Your task to perform on an android device: Open Google Chrome and click the shortcut for Amazon.com Image 0: 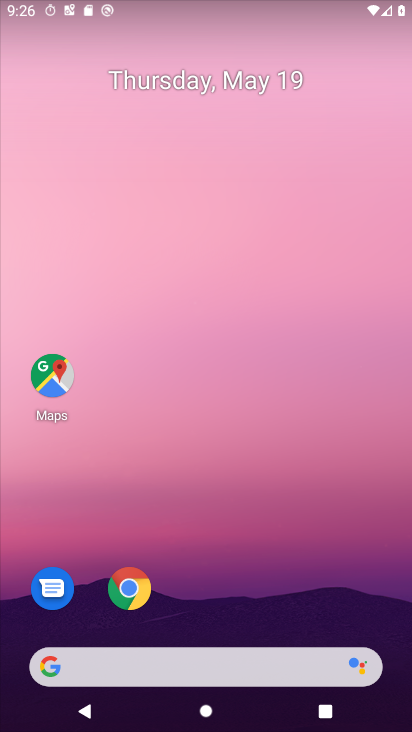
Step 0: press home button
Your task to perform on an android device: Open Google Chrome and click the shortcut for Amazon.com Image 1: 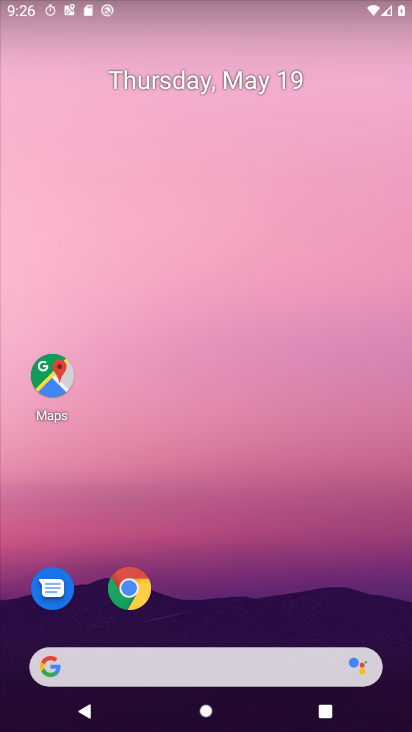
Step 1: click (132, 596)
Your task to perform on an android device: Open Google Chrome and click the shortcut for Amazon.com Image 2: 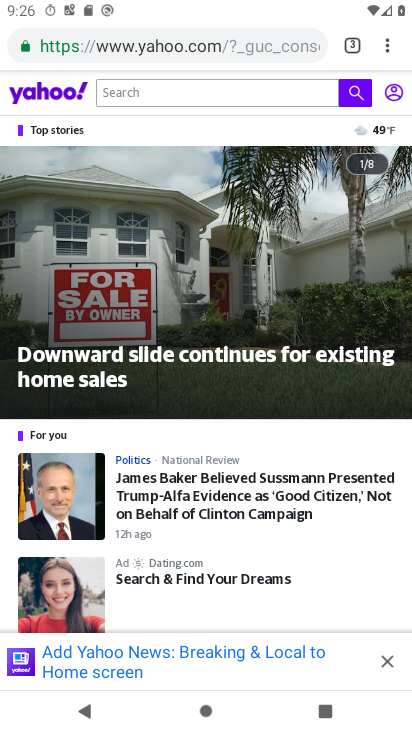
Step 2: drag from (385, 45) to (336, 91)
Your task to perform on an android device: Open Google Chrome and click the shortcut for Amazon.com Image 3: 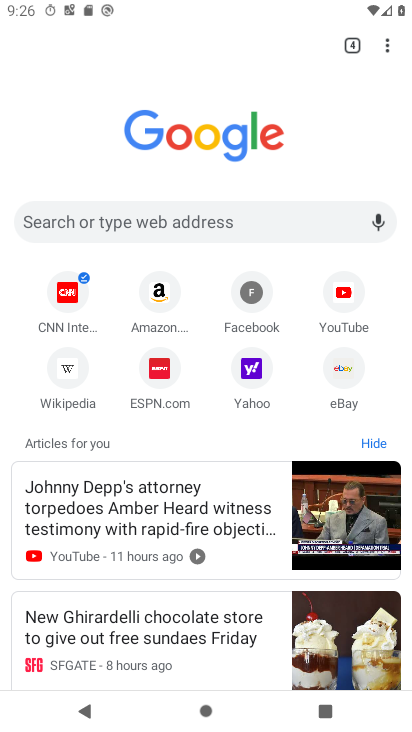
Step 3: click (153, 292)
Your task to perform on an android device: Open Google Chrome and click the shortcut for Amazon.com Image 4: 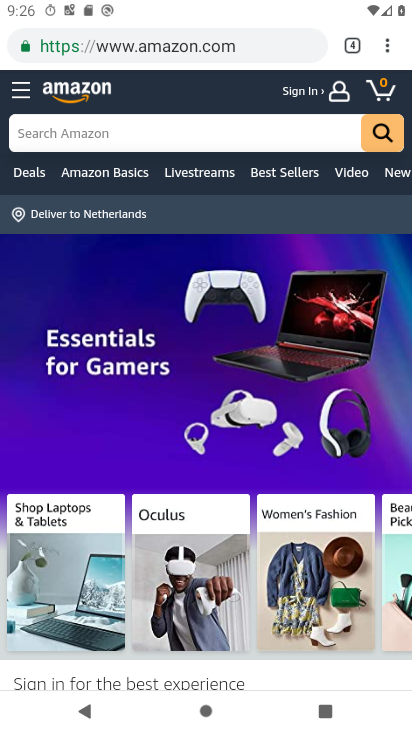
Step 4: task complete